Your task to perform on an android device: Open accessibility settings Image 0: 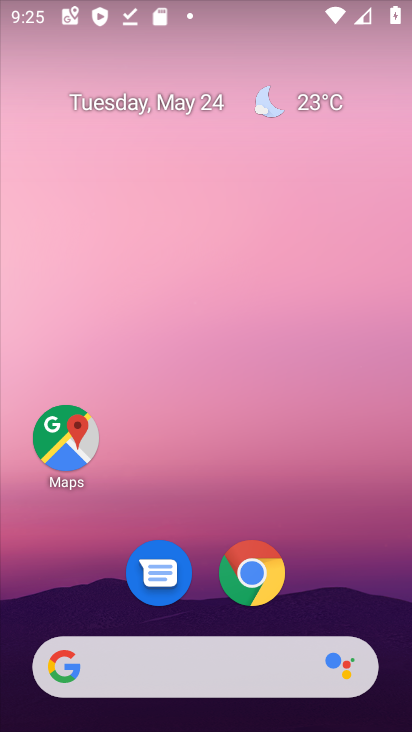
Step 0: drag from (364, 655) to (228, 185)
Your task to perform on an android device: Open accessibility settings Image 1: 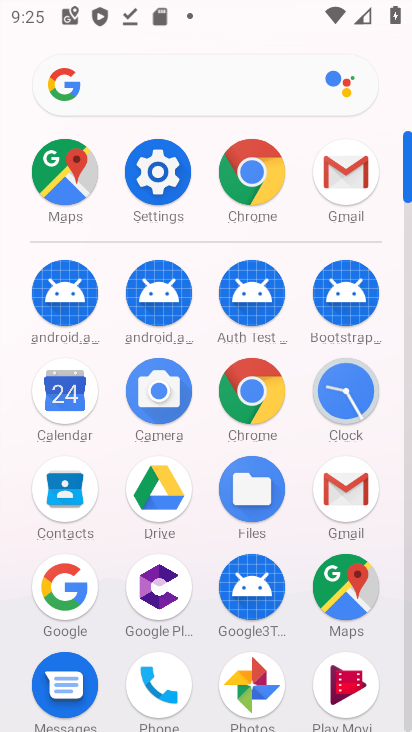
Step 1: click (151, 173)
Your task to perform on an android device: Open accessibility settings Image 2: 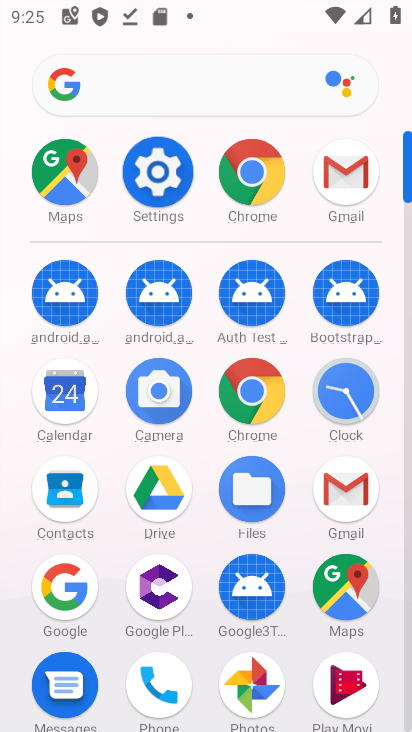
Step 2: click (152, 173)
Your task to perform on an android device: Open accessibility settings Image 3: 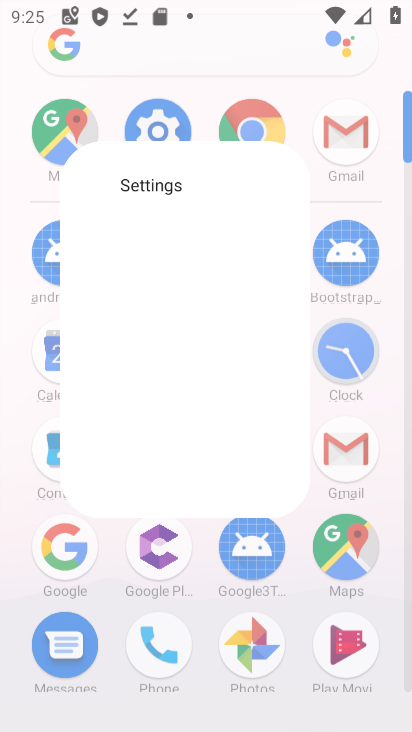
Step 3: click (153, 171)
Your task to perform on an android device: Open accessibility settings Image 4: 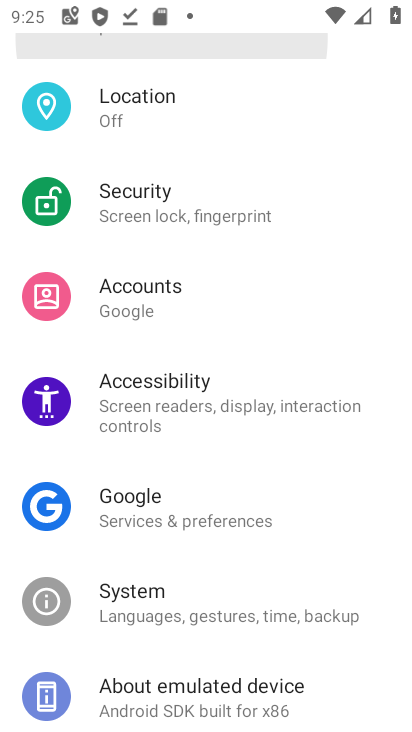
Step 4: click (153, 171)
Your task to perform on an android device: Open accessibility settings Image 5: 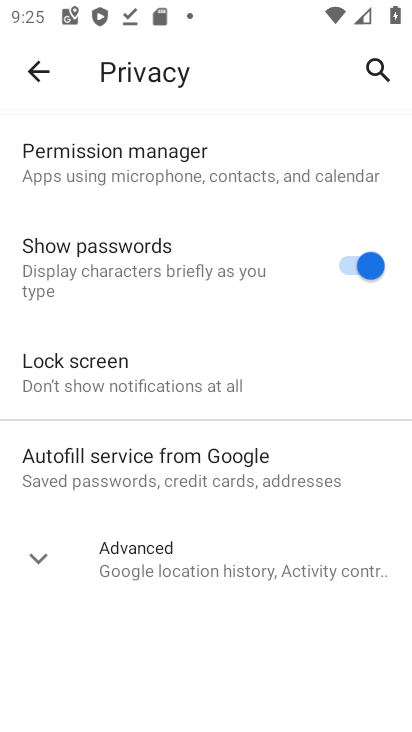
Step 5: click (38, 56)
Your task to perform on an android device: Open accessibility settings Image 6: 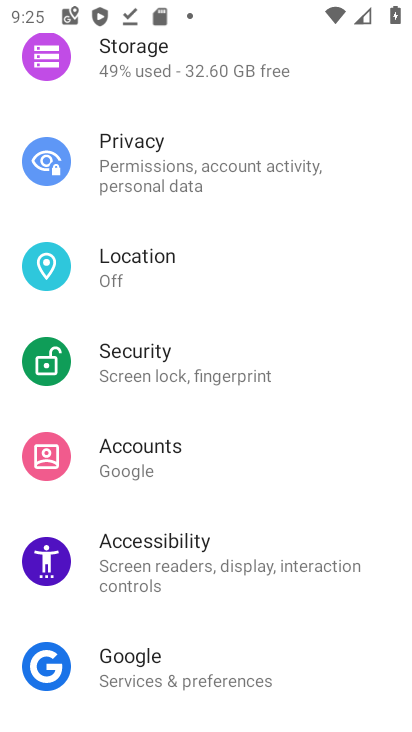
Step 6: click (142, 564)
Your task to perform on an android device: Open accessibility settings Image 7: 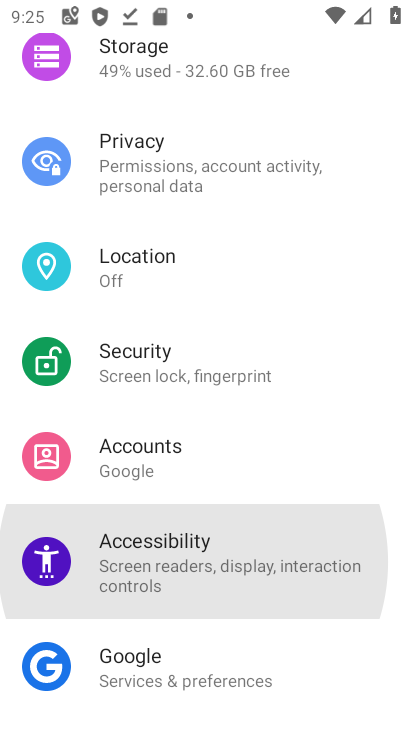
Step 7: click (142, 564)
Your task to perform on an android device: Open accessibility settings Image 8: 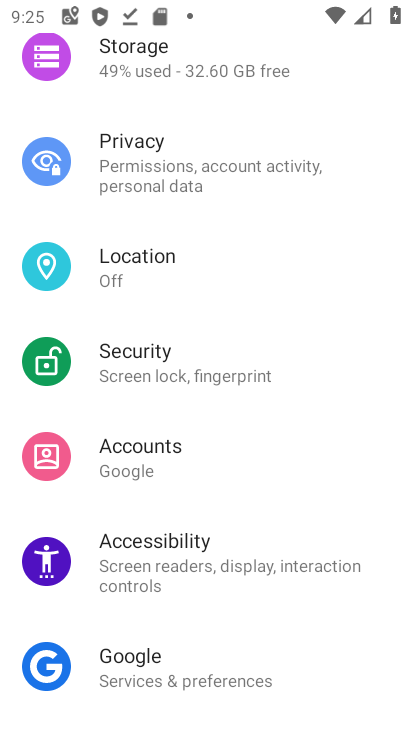
Step 8: click (142, 564)
Your task to perform on an android device: Open accessibility settings Image 9: 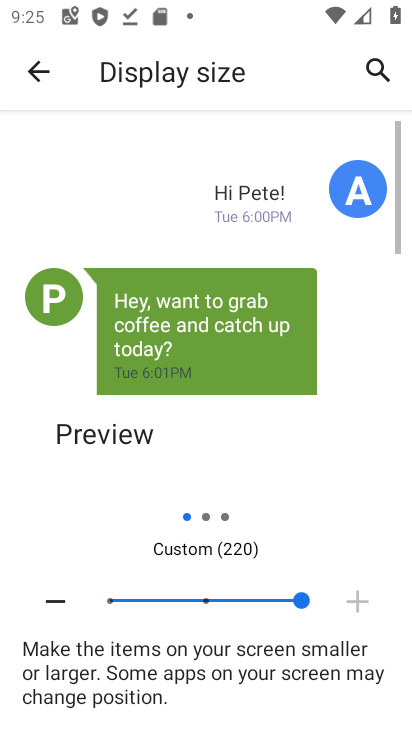
Step 9: click (38, 72)
Your task to perform on an android device: Open accessibility settings Image 10: 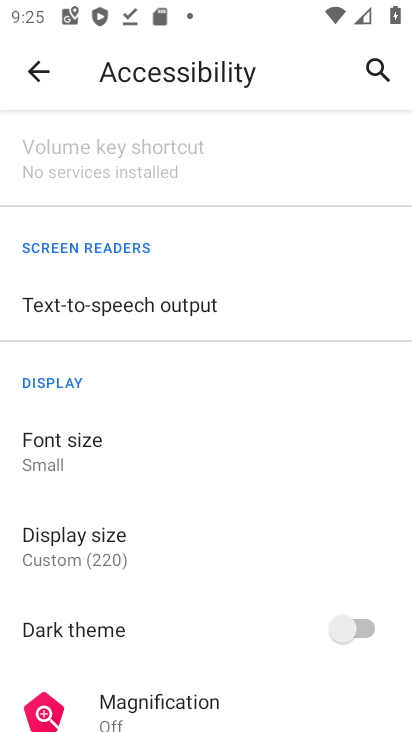
Step 10: task complete